Your task to perform on an android device: Go to Wikipedia Image 0: 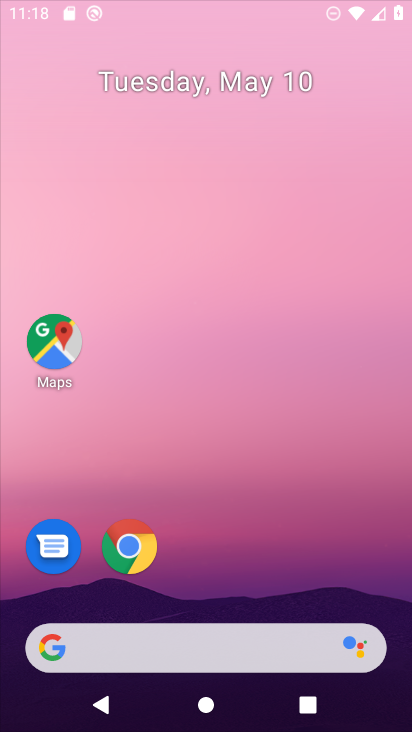
Step 0: press home button
Your task to perform on an android device: Go to Wikipedia Image 1: 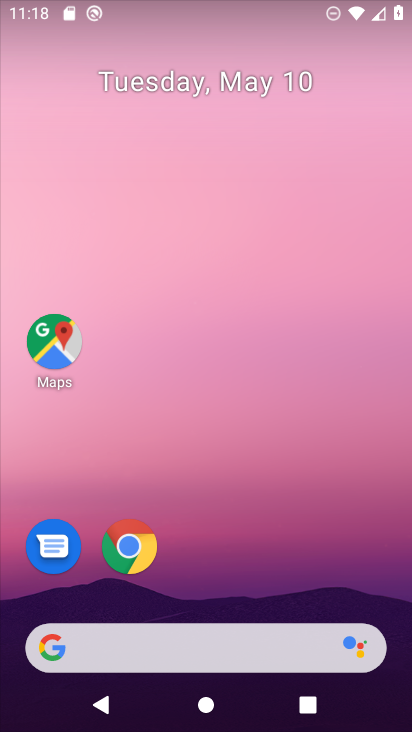
Step 1: click (123, 545)
Your task to perform on an android device: Go to Wikipedia Image 2: 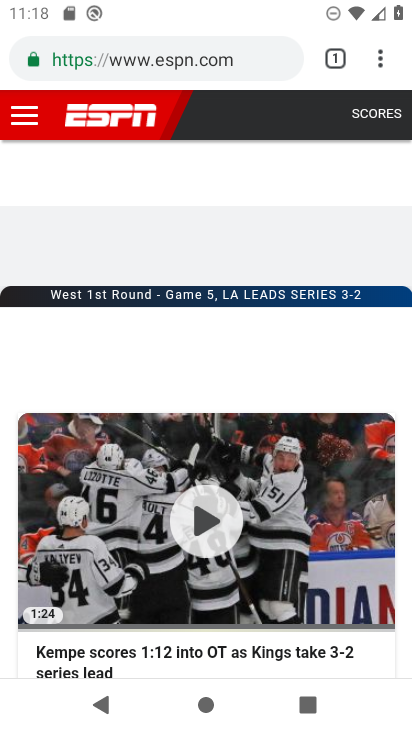
Step 2: click (158, 52)
Your task to perform on an android device: Go to Wikipedia Image 3: 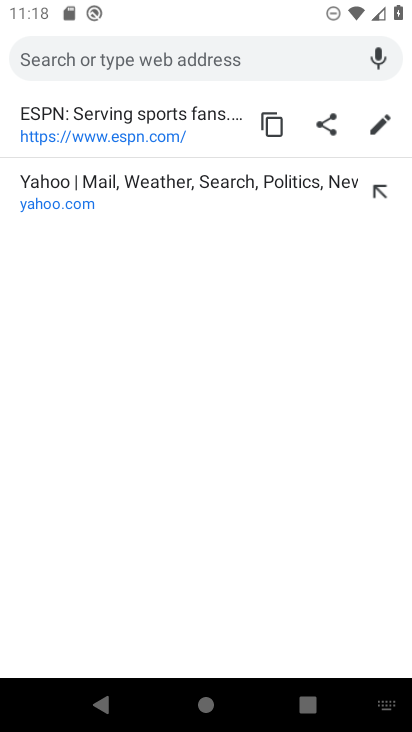
Step 3: type "wikipedia"
Your task to perform on an android device: Go to Wikipedia Image 4: 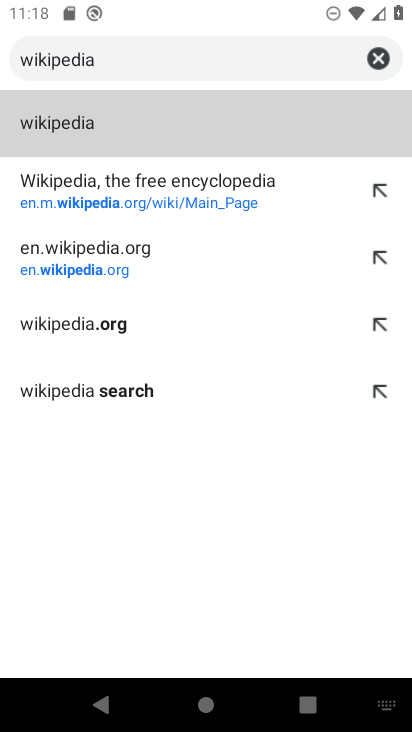
Step 4: click (81, 120)
Your task to perform on an android device: Go to Wikipedia Image 5: 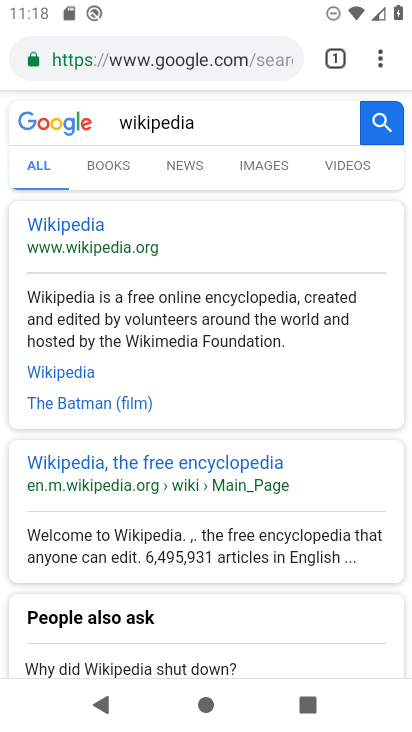
Step 5: click (91, 226)
Your task to perform on an android device: Go to Wikipedia Image 6: 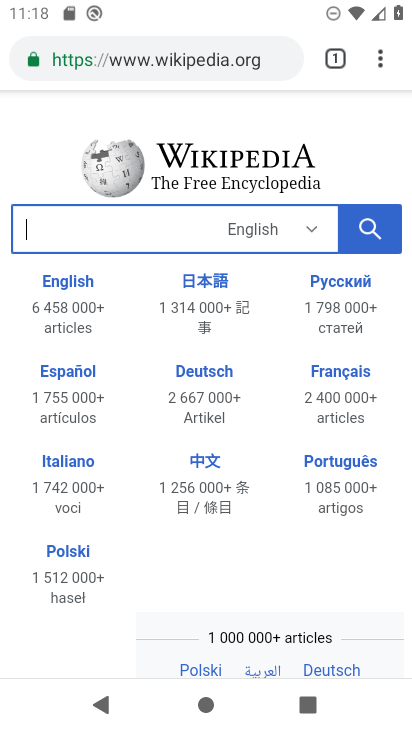
Step 6: task complete